Your task to perform on an android device: What's the weather? Image 0: 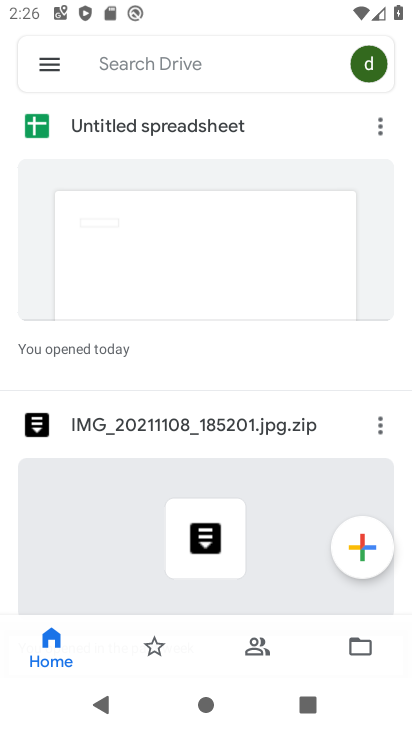
Step 0: press home button
Your task to perform on an android device: What's the weather? Image 1: 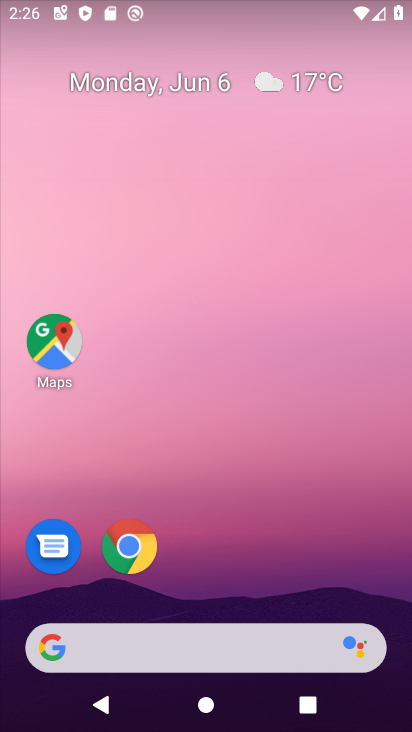
Step 1: drag from (318, 608) to (252, 0)
Your task to perform on an android device: What's the weather? Image 2: 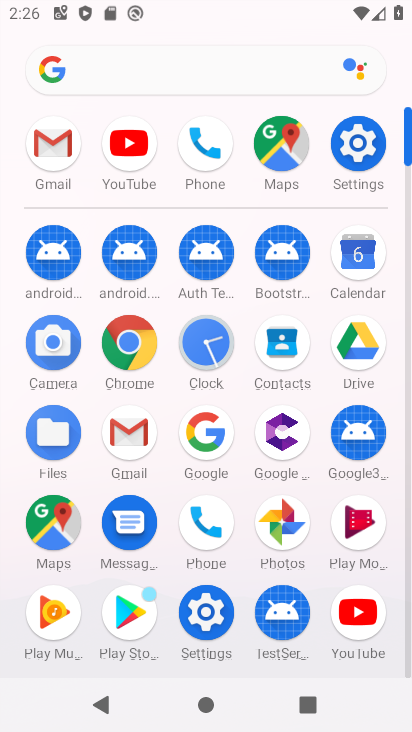
Step 2: click (362, 139)
Your task to perform on an android device: What's the weather? Image 3: 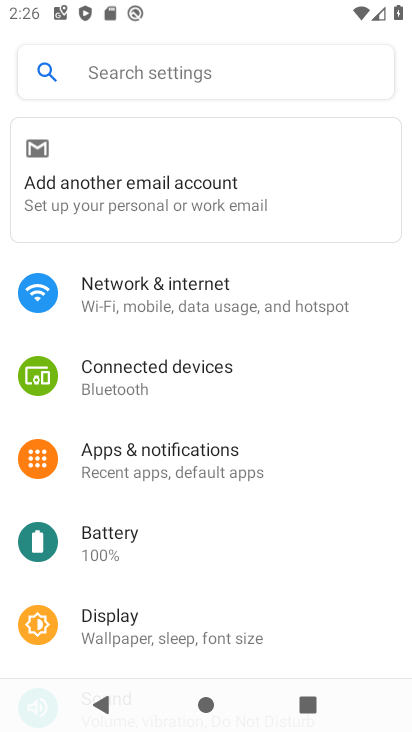
Step 3: press home button
Your task to perform on an android device: What's the weather? Image 4: 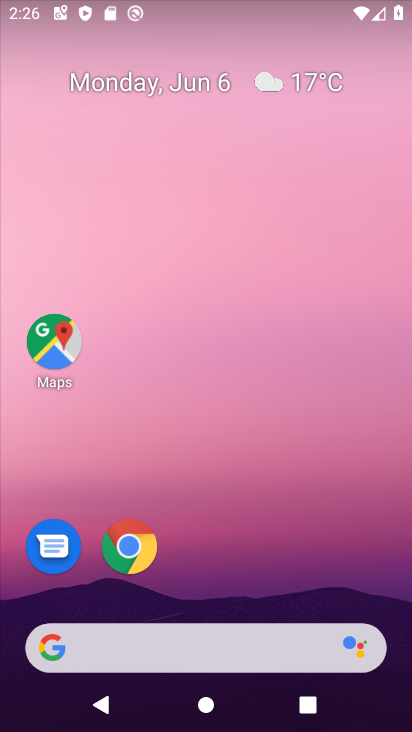
Step 4: drag from (283, 583) to (269, 44)
Your task to perform on an android device: What's the weather? Image 5: 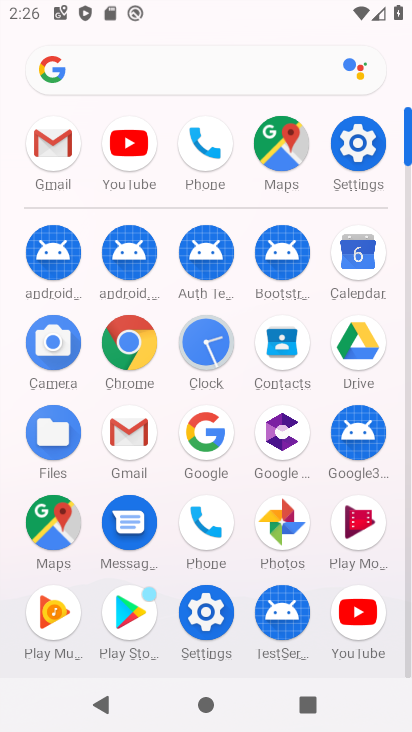
Step 5: click (216, 59)
Your task to perform on an android device: What's the weather? Image 6: 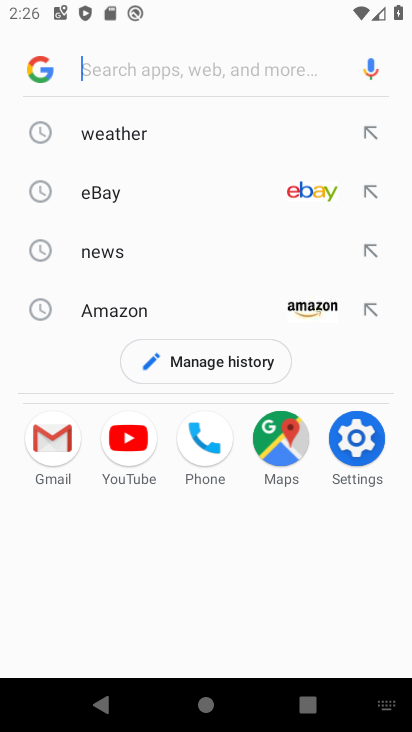
Step 6: click (231, 128)
Your task to perform on an android device: What's the weather? Image 7: 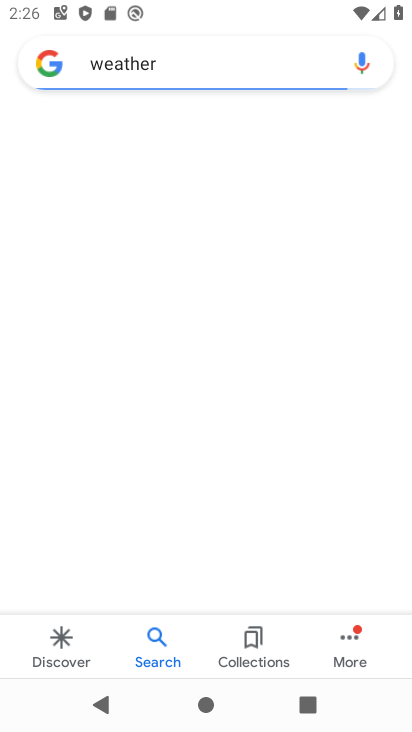
Step 7: task complete